Your task to perform on an android device: Go to Google Image 0: 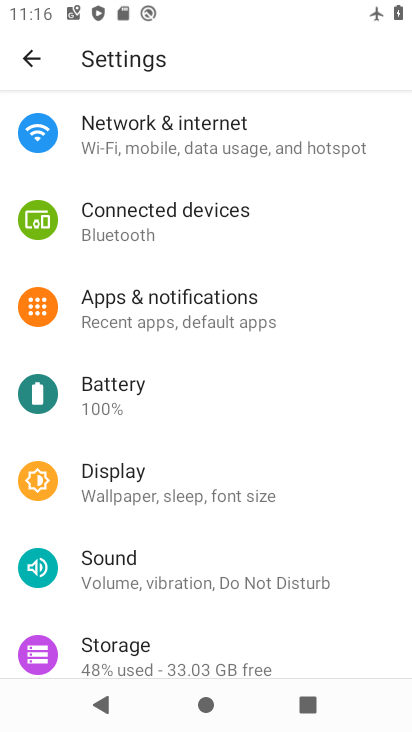
Step 0: press home button
Your task to perform on an android device: Go to Google Image 1: 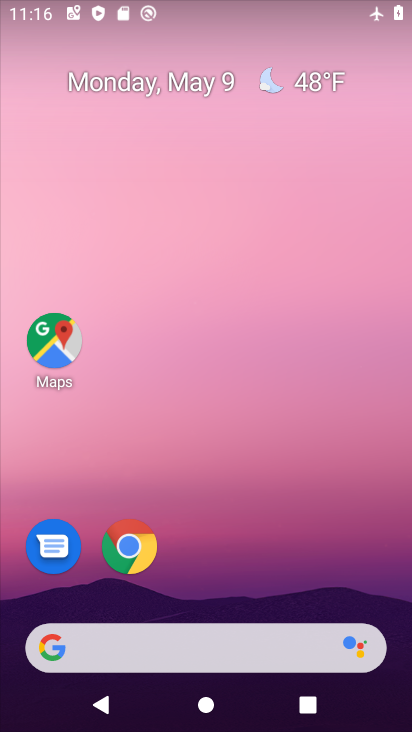
Step 1: drag from (303, 583) to (293, 1)
Your task to perform on an android device: Go to Google Image 2: 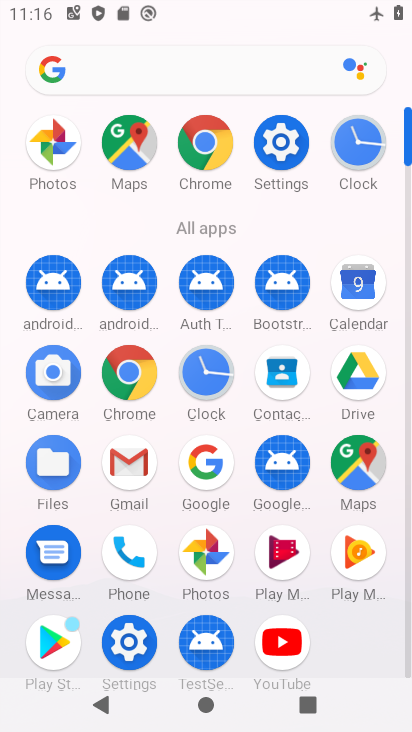
Step 2: click (209, 463)
Your task to perform on an android device: Go to Google Image 3: 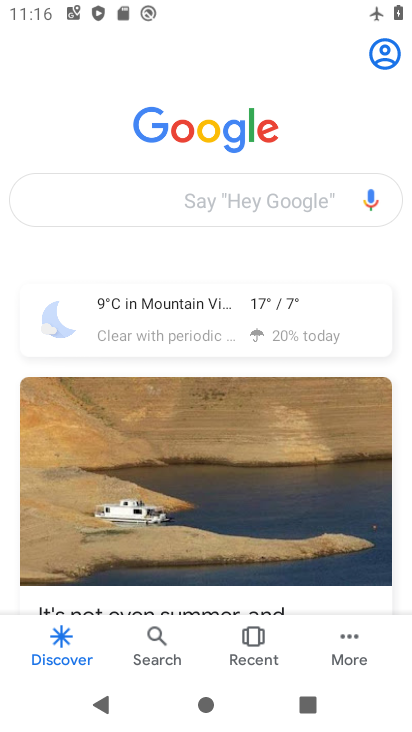
Step 3: task complete